Your task to perform on an android device: turn pop-ups off in chrome Image 0: 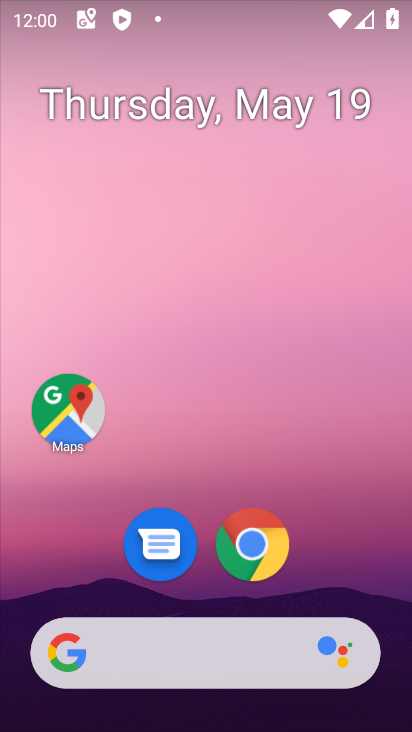
Step 0: drag from (261, 655) to (301, 30)
Your task to perform on an android device: turn pop-ups off in chrome Image 1: 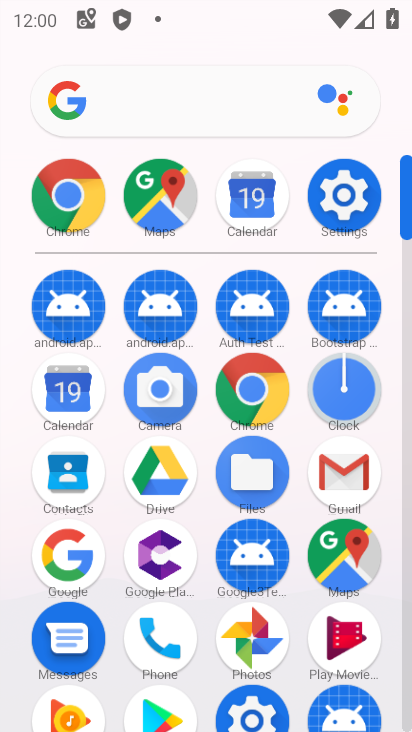
Step 1: click (222, 397)
Your task to perform on an android device: turn pop-ups off in chrome Image 2: 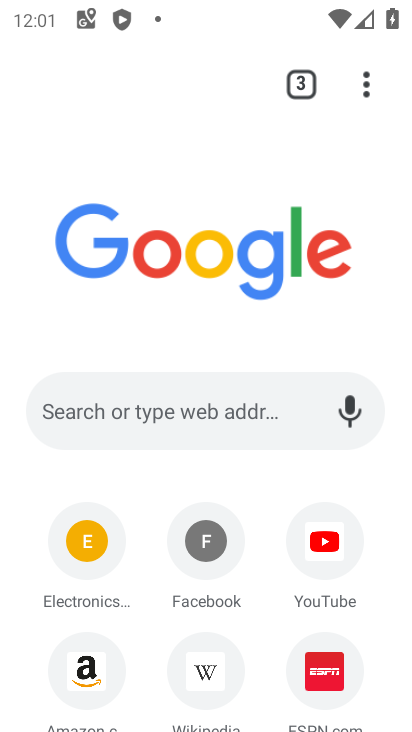
Step 2: click (376, 81)
Your task to perform on an android device: turn pop-ups off in chrome Image 3: 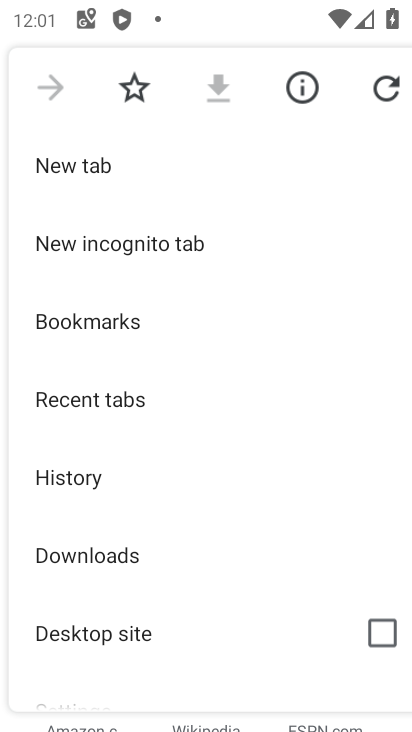
Step 3: drag from (167, 662) to (219, 160)
Your task to perform on an android device: turn pop-ups off in chrome Image 4: 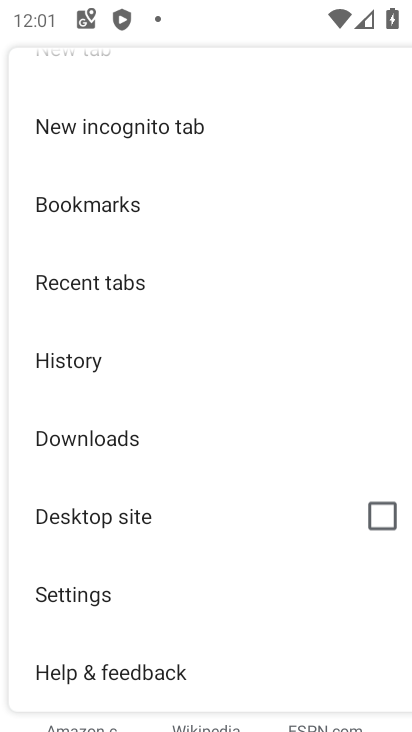
Step 4: click (99, 592)
Your task to perform on an android device: turn pop-ups off in chrome Image 5: 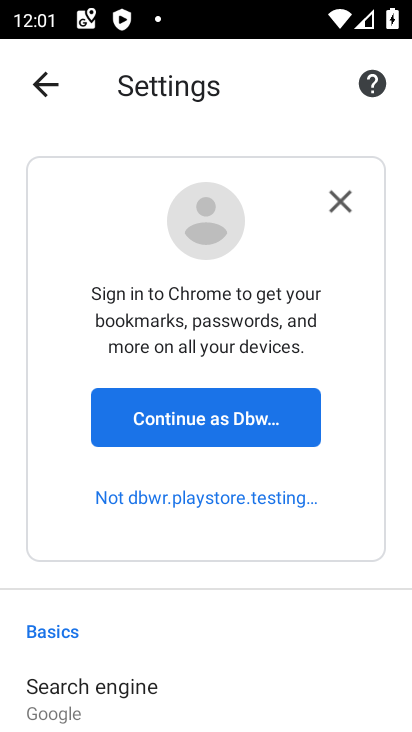
Step 5: drag from (247, 627) to (241, 183)
Your task to perform on an android device: turn pop-ups off in chrome Image 6: 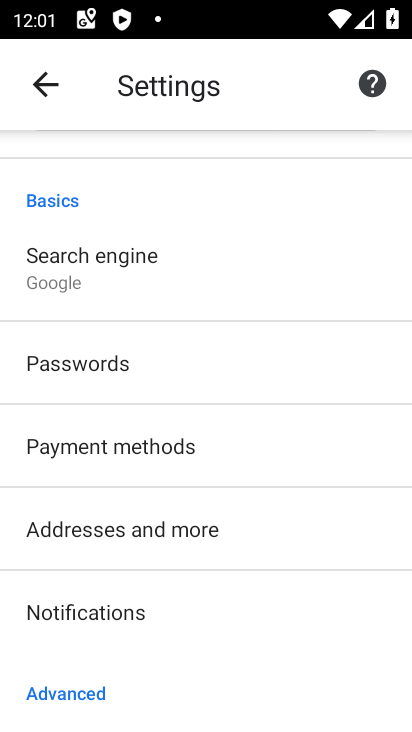
Step 6: drag from (267, 625) to (261, 192)
Your task to perform on an android device: turn pop-ups off in chrome Image 7: 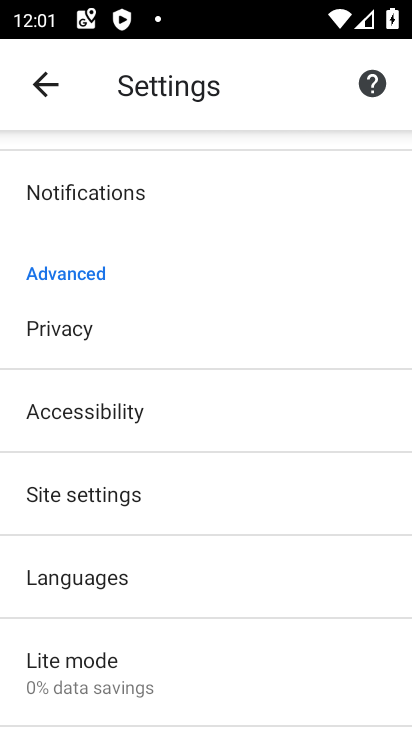
Step 7: click (187, 500)
Your task to perform on an android device: turn pop-ups off in chrome Image 8: 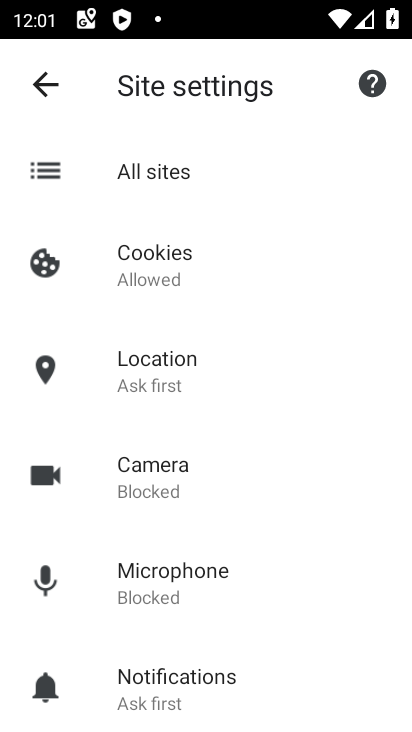
Step 8: drag from (302, 622) to (301, 174)
Your task to perform on an android device: turn pop-ups off in chrome Image 9: 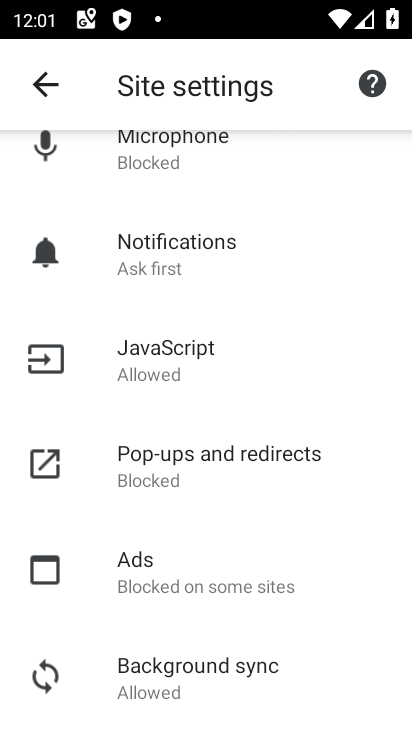
Step 9: drag from (293, 702) to (326, 134)
Your task to perform on an android device: turn pop-ups off in chrome Image 10: 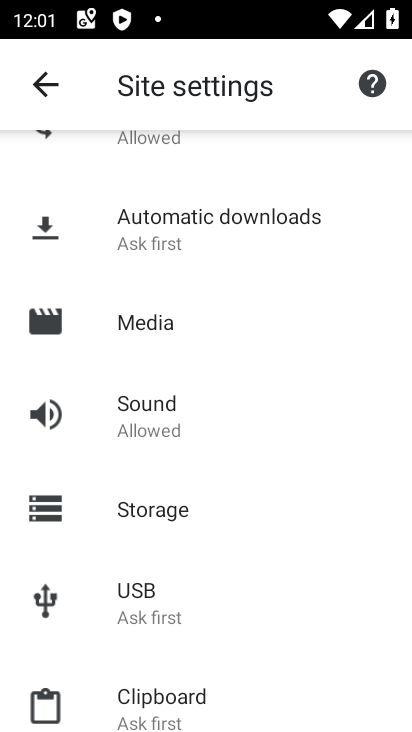
Step 10: drag from (312, 609) to (309, 268)
Your task to perform on an android device: turn pop-ups off in chrome Image 11: 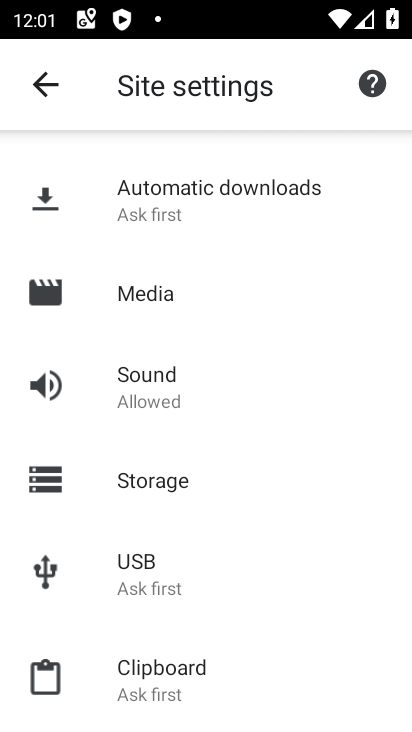
Step 11: drag from (308, 614) to (279, 308)
Your task to perform on an android device: turn pop-ups off in chrome Image 12: 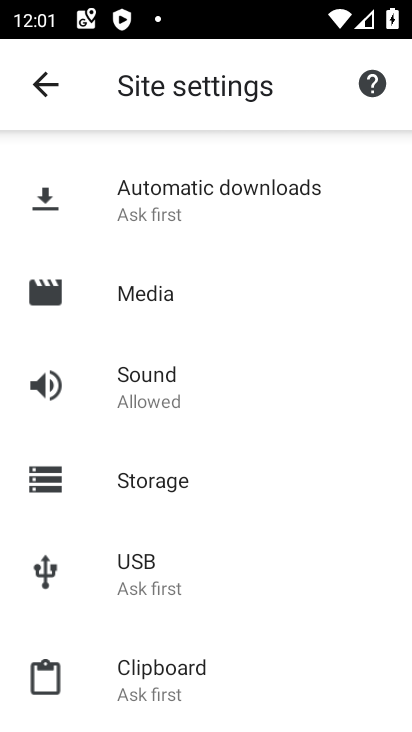
Step 12: drag from (280, 250) to (261, 629)
Your task to perform on an android device: turn pop-ups off in chrome Image 13: 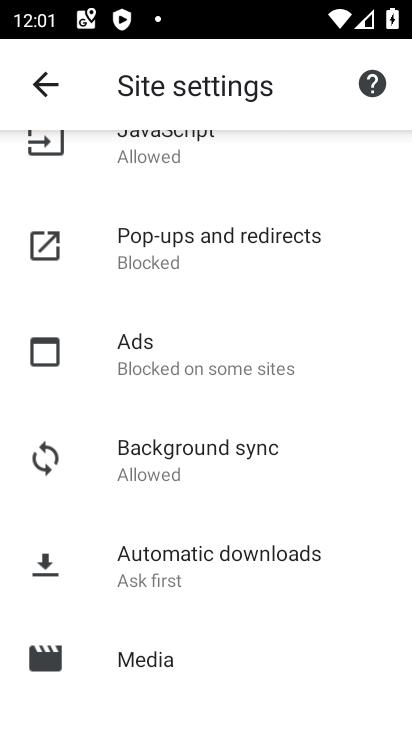
Step 13: click (236, 232)
Your task to perform on an android device: turn pop-ups off in chrome Image 14: 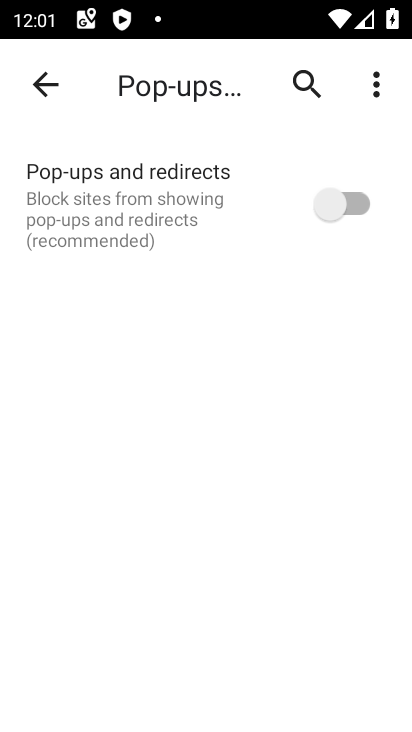
Step 14: task complete